Your task to perform on an android device: See recent photos Image 0: 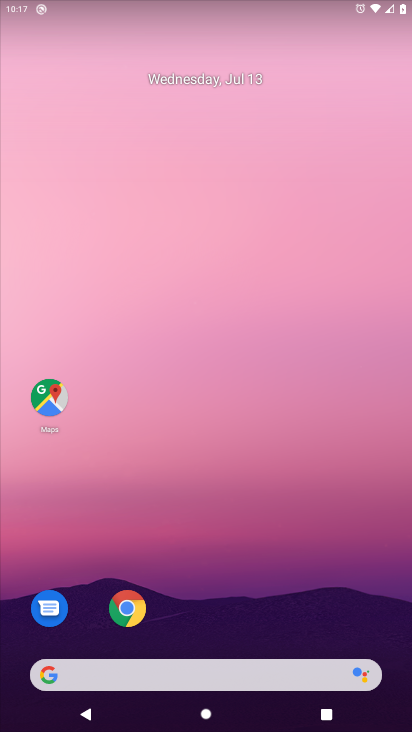
Step 0: click (7, 599)
Your task to perform on an android device: See recent photos Image 1: 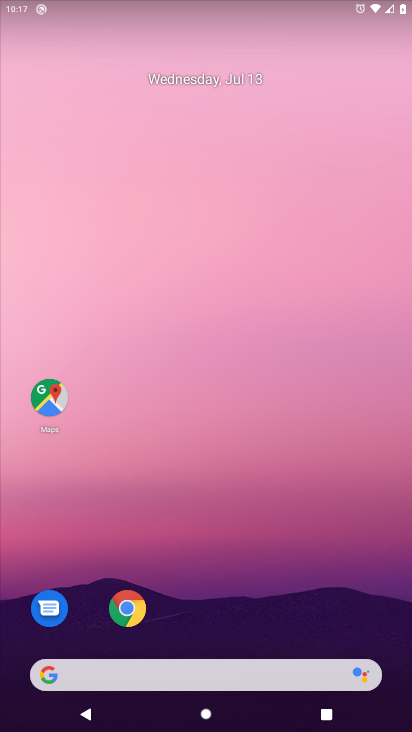
Step 1: drag from (47, 583) to (176, 12)
Your task to perform on an android device: See recent photos Image 2: 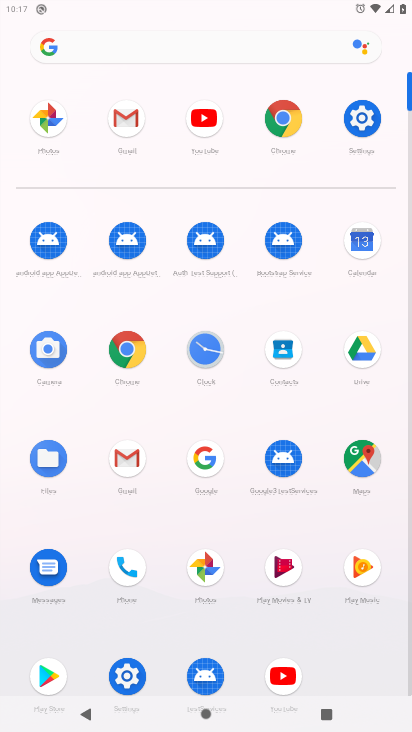
Step 2: click (205, 566)
Your task to perform on an android device: See recent photos Image 3: 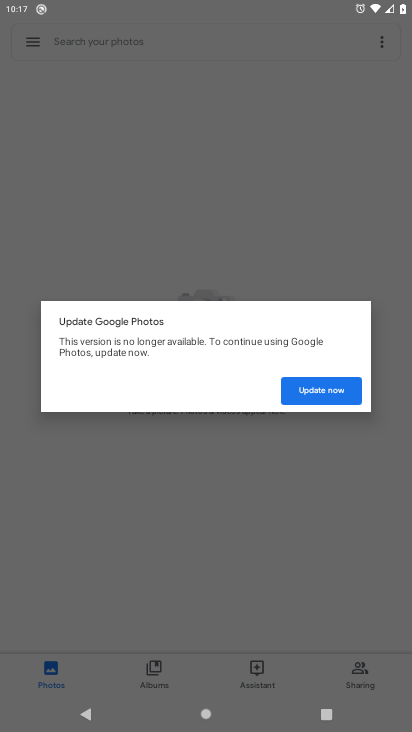
Step 3: click (323, 385)
Your task to perform on an android device: See recent photos Image 4: 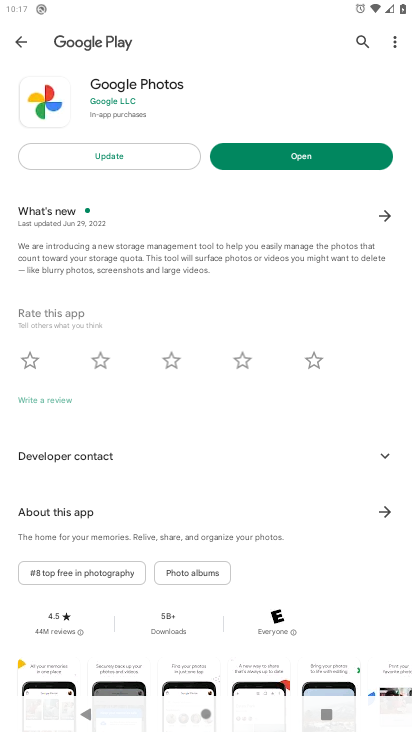
Step 4: click (278, 164)
Your task to perform on an android device: See recent photos Image 5: 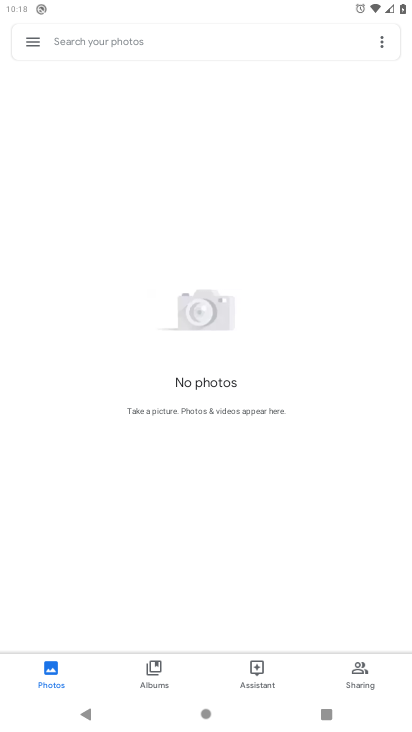
Step 5: click (279, 152)
Your task to perform on an android device: See recent photos Image 6: 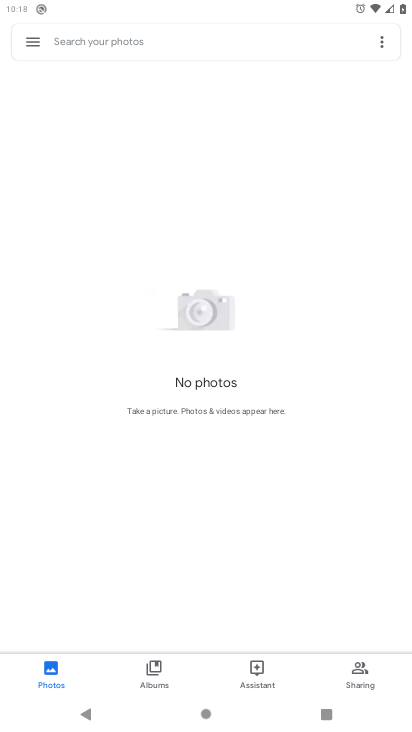
Step 6: task complete